Your task to perform on an android device: Go to display settings Image 0: 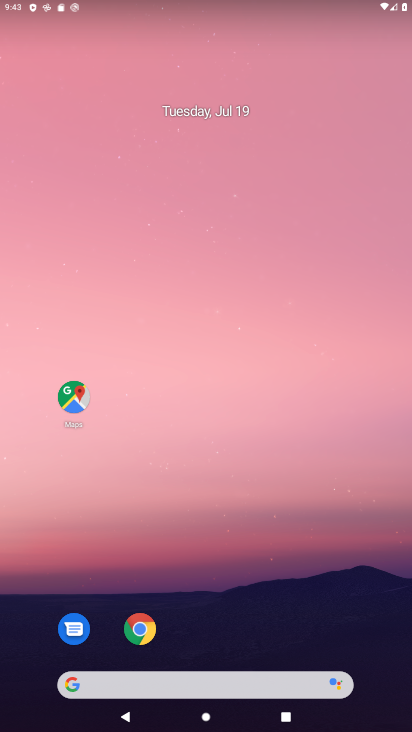
Step 0: press home button
Your task to perform on an android device: Go to display settings Image 1: 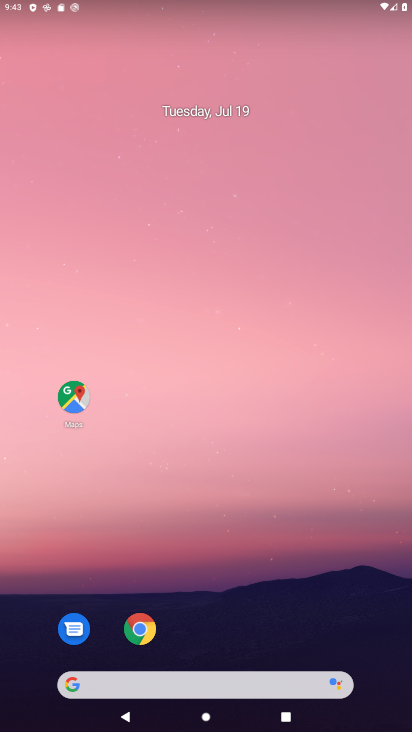
Step 1: drag from (323, 543) to (291, 131)
Your task to perform on an android device: Go to display settings Image 2: 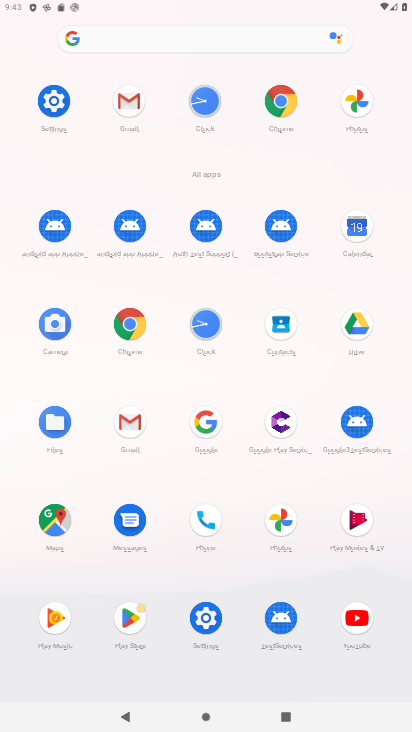
Step 2: click (49, 97)
Your task to perform on an android device: Go to display settings Image 3: 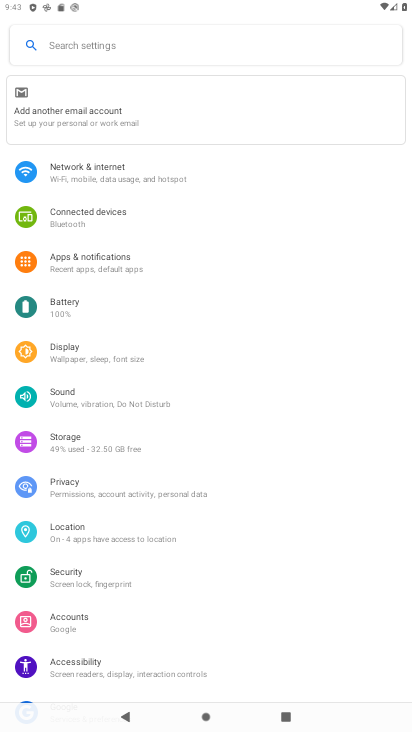
Step 3: click (60, 349)
Your task to perform on an android device: Go to display settings Image 4: 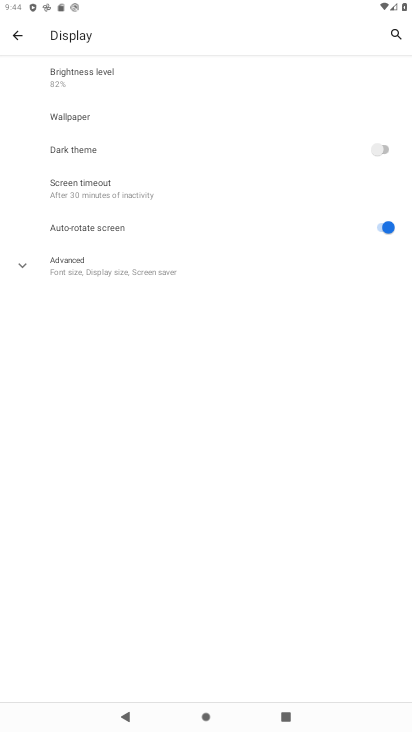
Step 4: task complete